Your task to perform on an android device: What's the weather going to be tomorrow? Image 0: 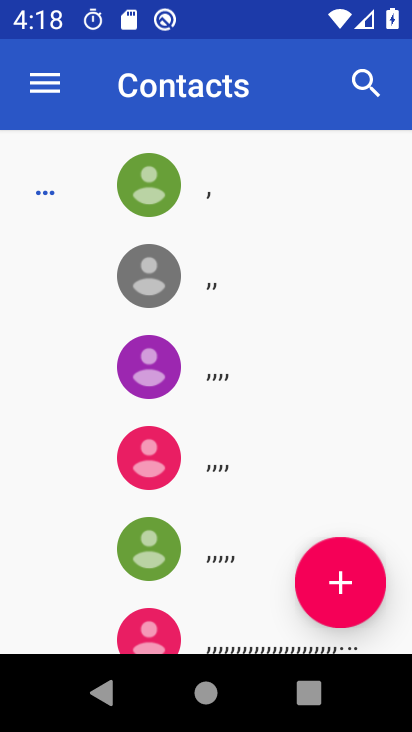
Step 0: press home button
Your task to perform on an android device: What's the weather going to be tomorrow? Image 1: 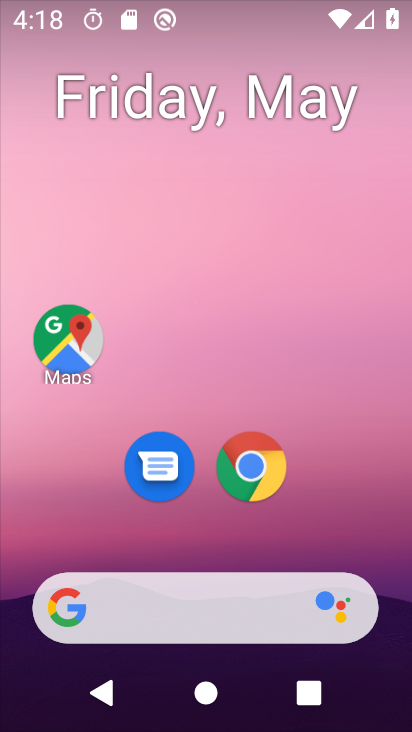
Step 1: drag from (6, 229) to (184, 235)
Your task to perform on an android device: What's the weather going to be tomorrow? Image 2: 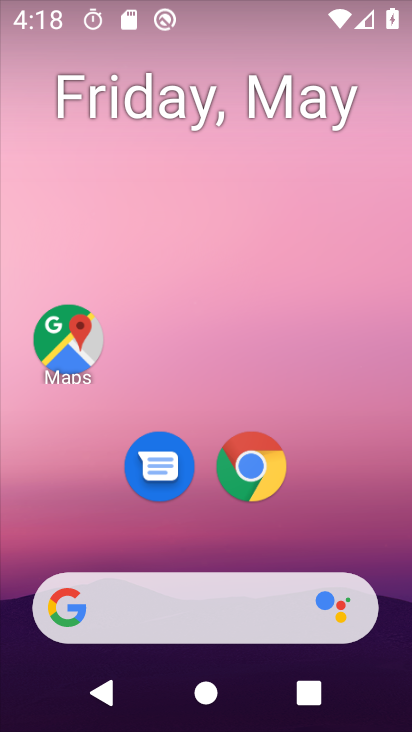
Step 2: drag from (64, 208) to (361, 208)
Your task to perform on an android device: What's the weather going to be tomorrow? Image 3: 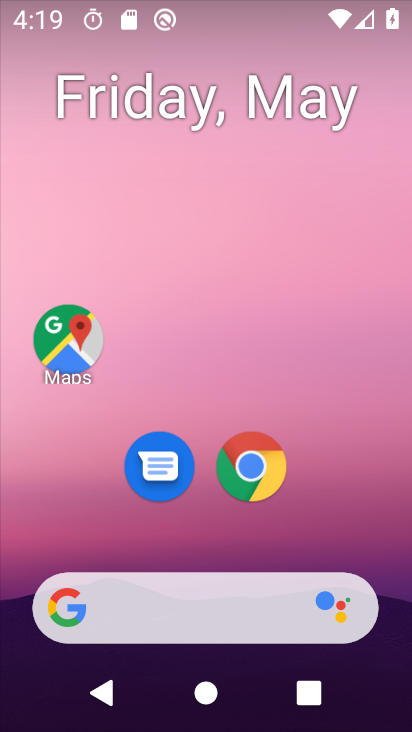
Step 3: drag from (4, 213) to (257, 237)
Your task to perform on an android device: What's the weather going to be tomorrow? Image 4: 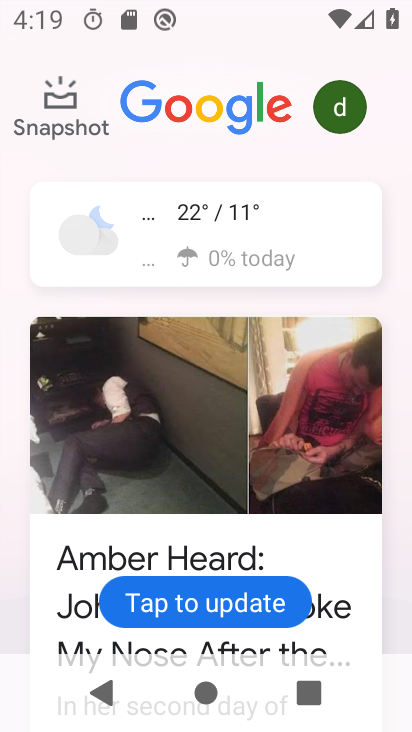
Step 4: click (198, 221)
Your task to perform on an android device: What's the weather going to be tomorrow? Image 5: 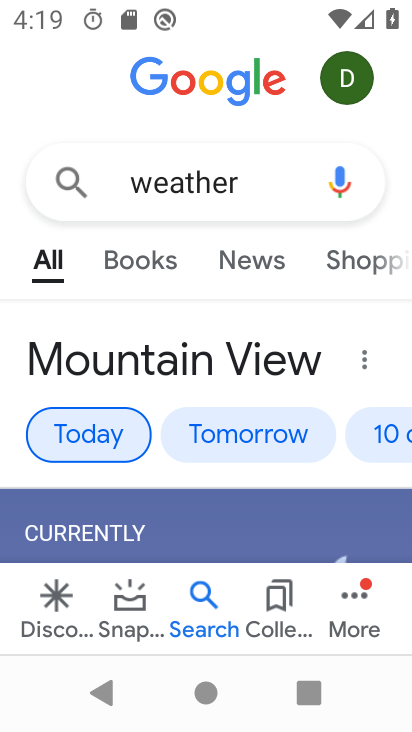
Step 5: click (237, 433)
Your task to perform on an android device: What's the weather going to be tomorrow? Image 6: 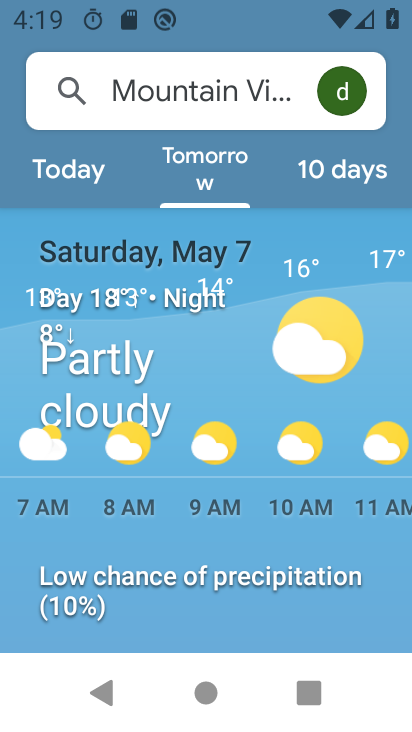
Step 6: task complete